Your task to perform on an android device: open the mobile data screen to see how much data has been used Image 0: 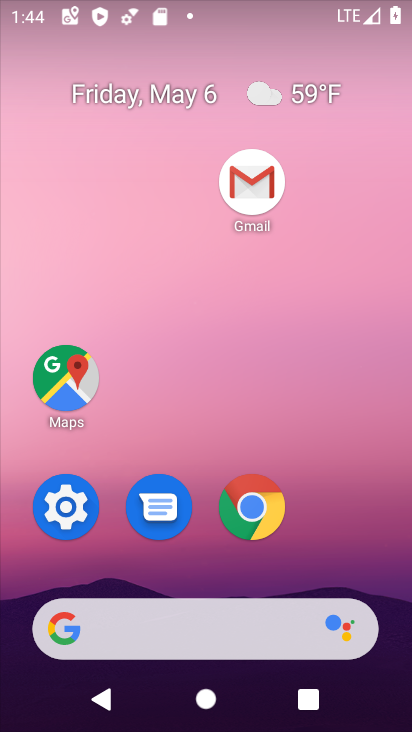
Step 0: click (64, 503)
Your task to perform on an android device: open the mobile data screen to see how much data has been used Image 1: 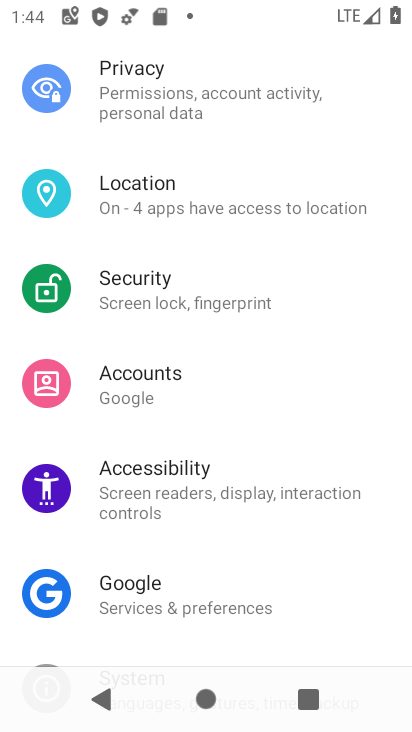
Step 1: drag from (226, 250) to (251, 725)
Your task to perform on an android device: open the mobile data screen to see how much data has been used Image 2: 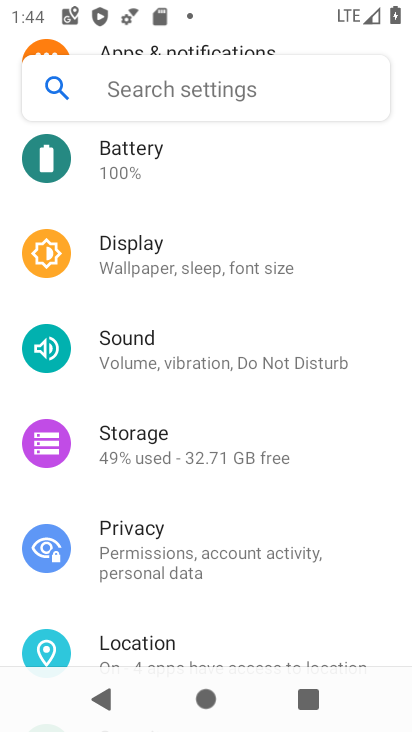
Step 2: drag from (227, 219) to (200, 563)
Your task to perform on an android device: open the mobile data screen to see how much data has been used Image 3: 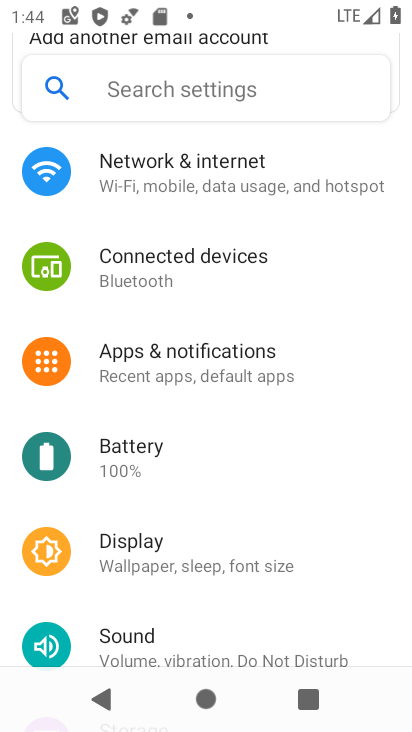
Step 3: click (197, 161)
Your task to perform on an android device: open the mobile data screen to see how much data has been used Image 4: 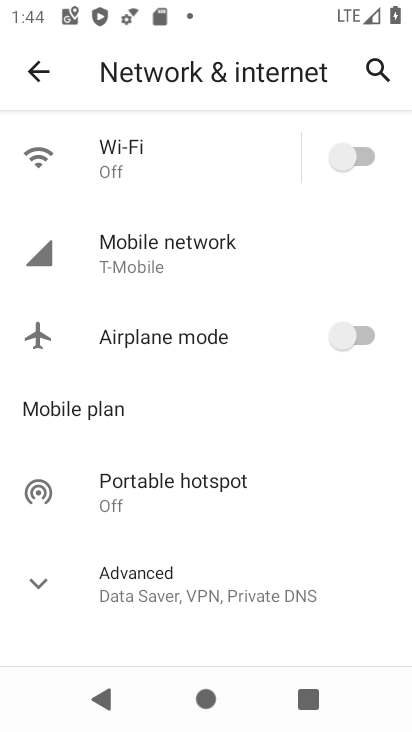
Step 4: click (172, 236)
Your task to perform on an android device: open the mobile data screen to see how much data has been used Image 5: 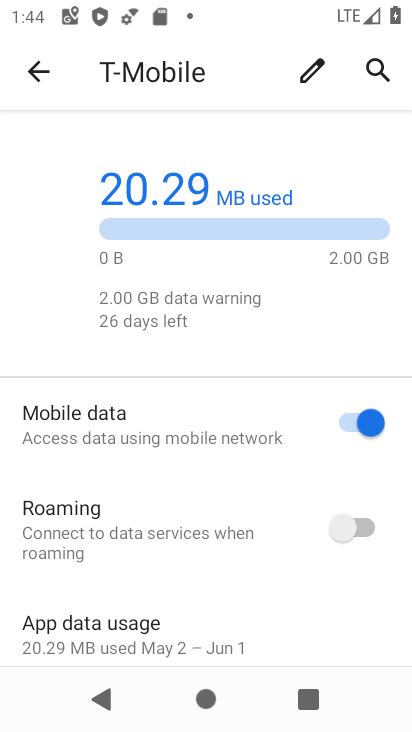
Step 5: task complete